Your task to perform on an android device: Open Google Chrome and click the shortcut for Amazon.com Image 0: 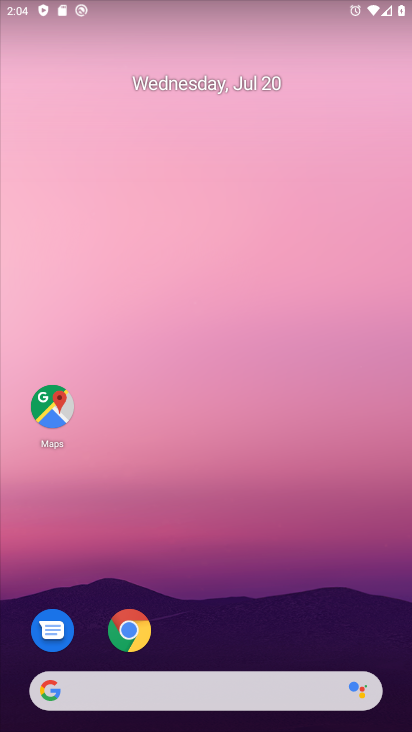
Step 0: click (130, 642)
Your task to perform on an android device: Open Google Chrome and click the shortcut for Amazon.com Image 1: 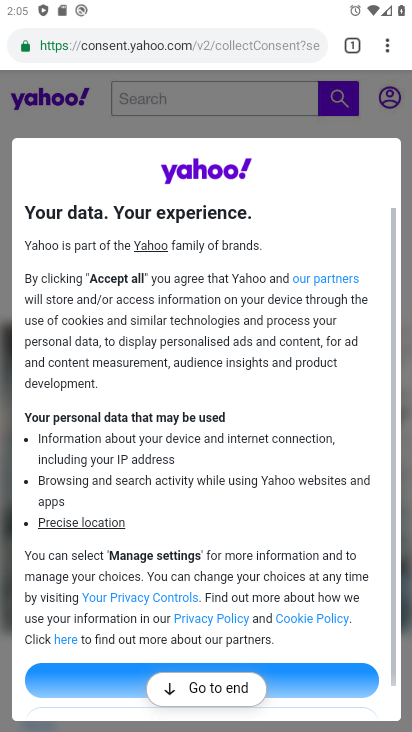
Step 1: click (353, 42)
Your task to perform on an android device: Open Google Chrome and click the shortcut for Amazon.com Image 2: 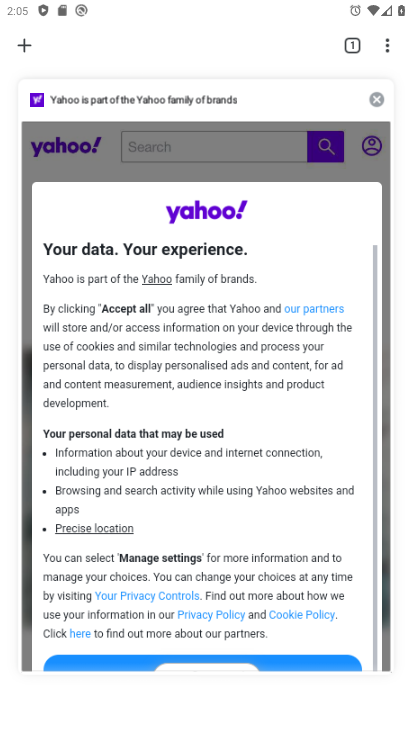
Step 2: click (371, 102)
Your task to perform on an android device: Open Google Chrome and click the shortcut for Amazon.com Image 3: 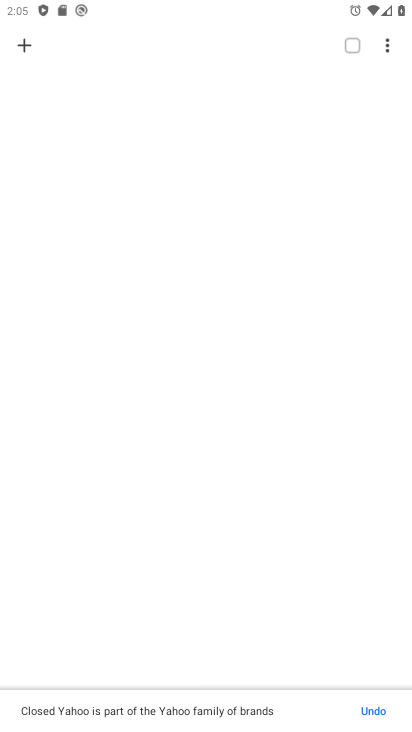
Step 3: click (24, 38)
Your task to perform on an android device: Open Google Chrome and click the shortcut for Amazon.com Image 4: 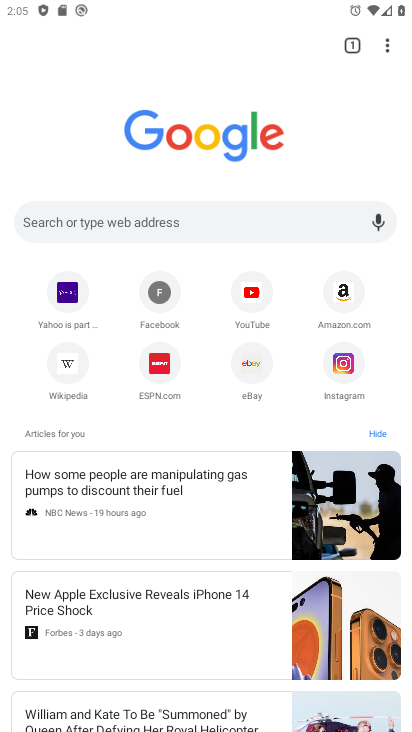
Step 4: click (338, 289)
Your task to perform on an android device: Open Google Chrome and click the shortcut for Amazon.com Image 5: 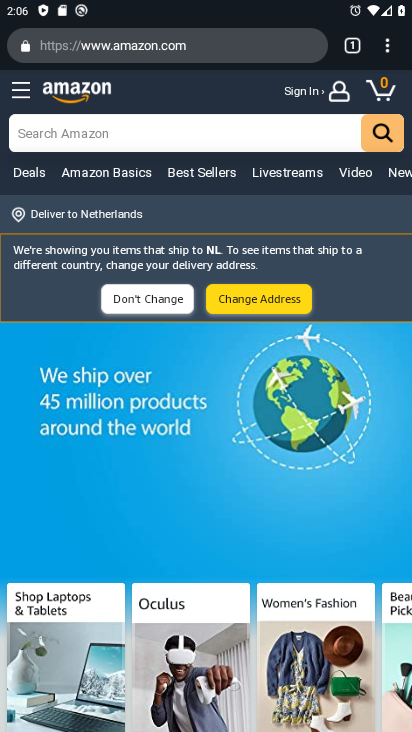
Step 5: task complete